Your task to perform on an android device: all mails in gmail Image 0: 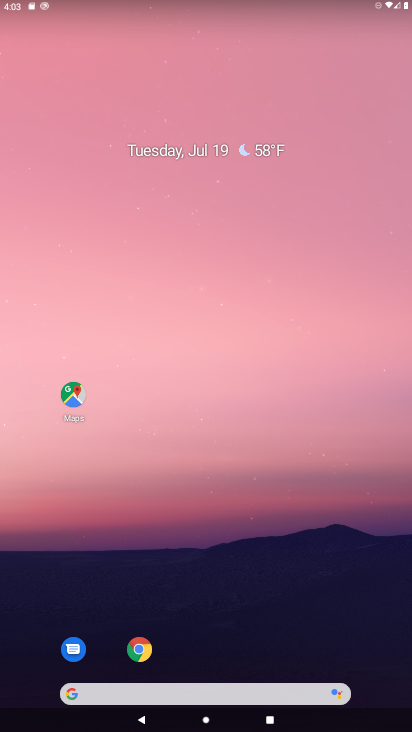
Step 0: click (224, 699)
Your task to perform on an android device: all mails in gmail Image 1: 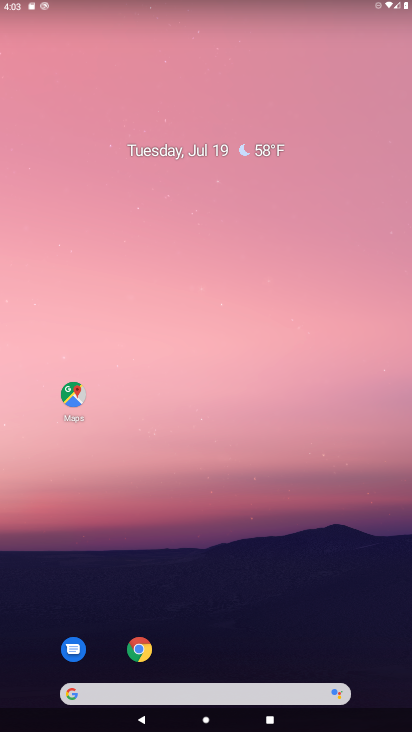
Step 1: drag from (214, 277) to (220, 81)
Your task to perform on an android device: all mails in gmail Image 2: 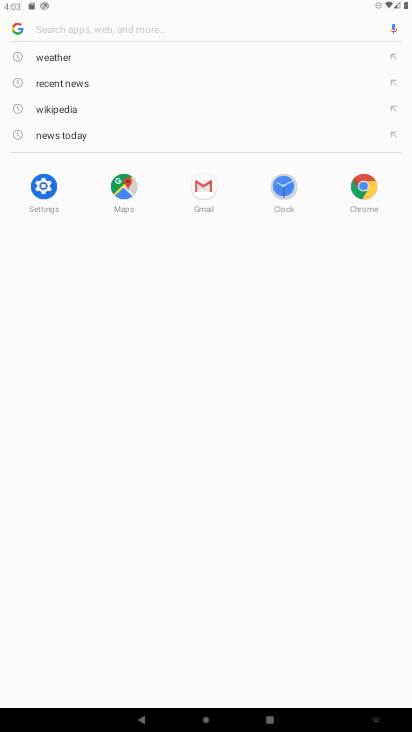
Step 2: press home button
Your task to perform on an android device: all mails in gmail Image 3: 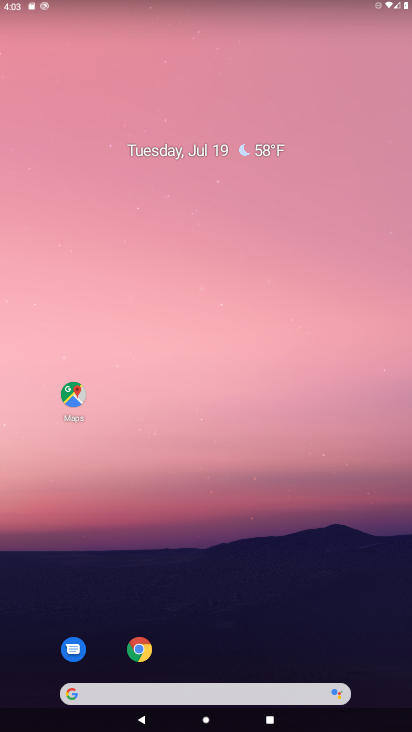
Step 3: drag from (226, 729) to (223, 182)
Your task to perform on an android device: all mails in gmail Image 4: 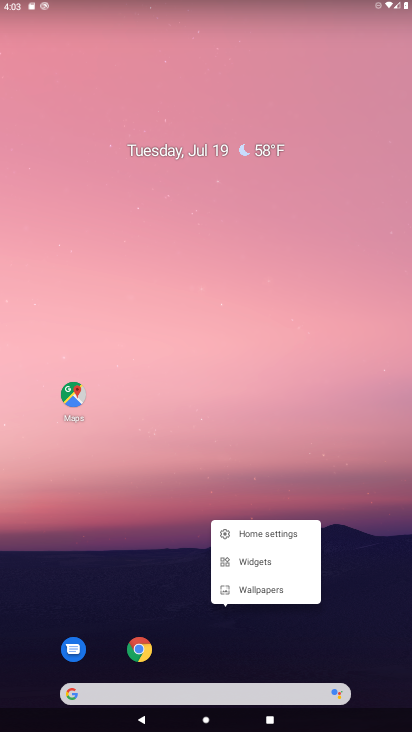
Step 4: click (218, 413)
Your task to perform on an android device: all mails in gmail Image 5: 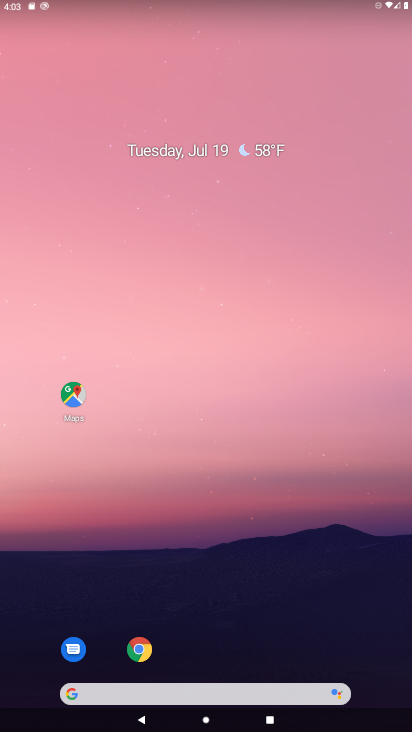
Step 5: drag from (231, 708) to (231, 72)
Your task to perform on an android device: all mails in gmail Image 6: 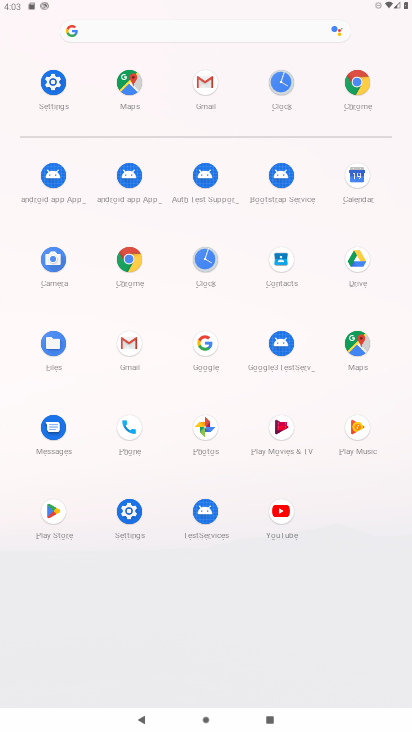
Step 6: click (120, 339)
Your task to perform on an android device: all mails in gmail Image 7: 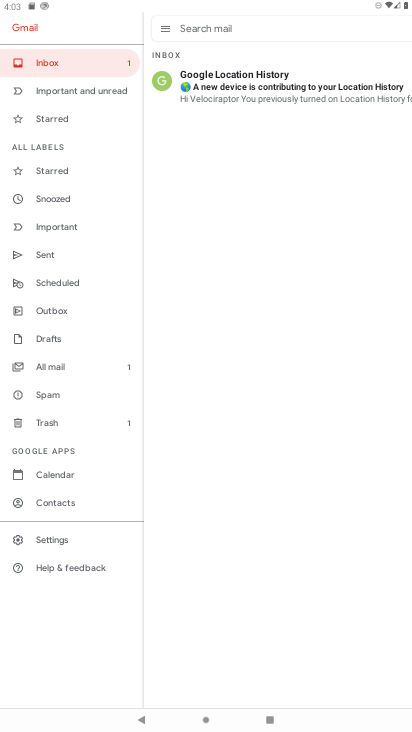
Step 7: click (48, 361)
Your task to perform on an android device: all mails in gmail Image 8: 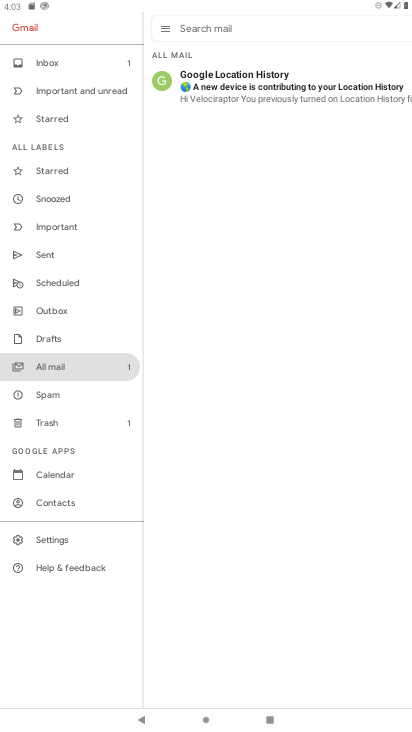
Step 8: click (48, 361)
Your task to perform on an android device: all mails in gmail Image 9: 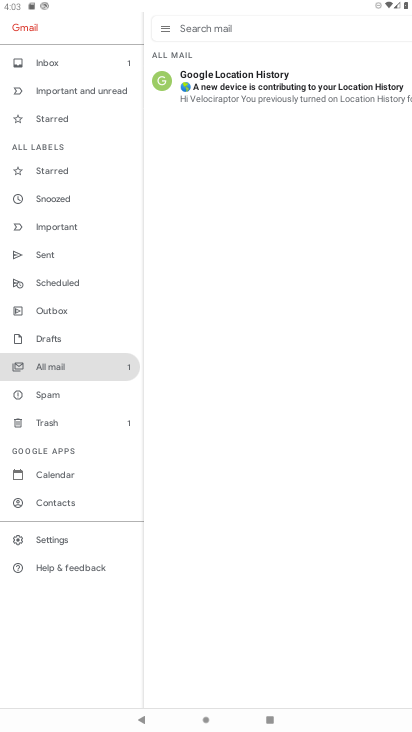
Step 9: click (48, 361)
Your task to perform on an android device: all mails in gmail Image 10: 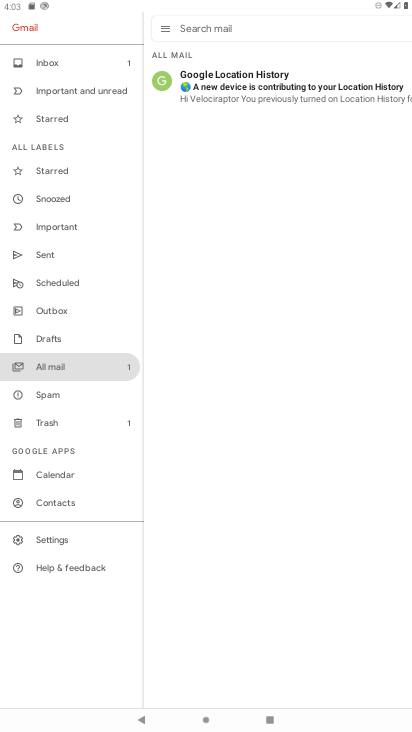
Step 10: task complete